Your task to perform on an android device: check google app version Image 0: 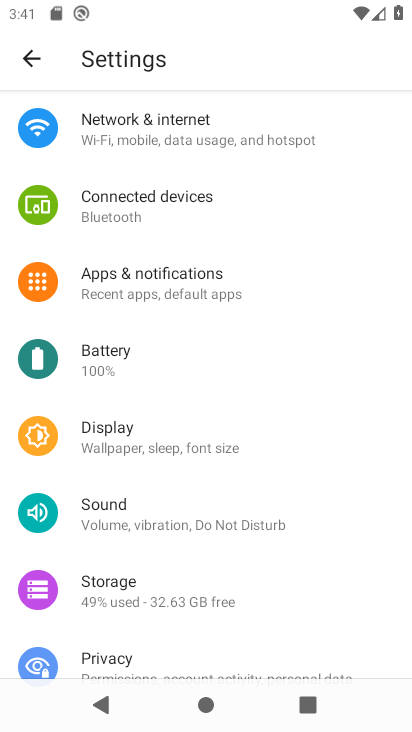
Step 0: press home button
Your task to perform on an android device: check google app version Image 1: 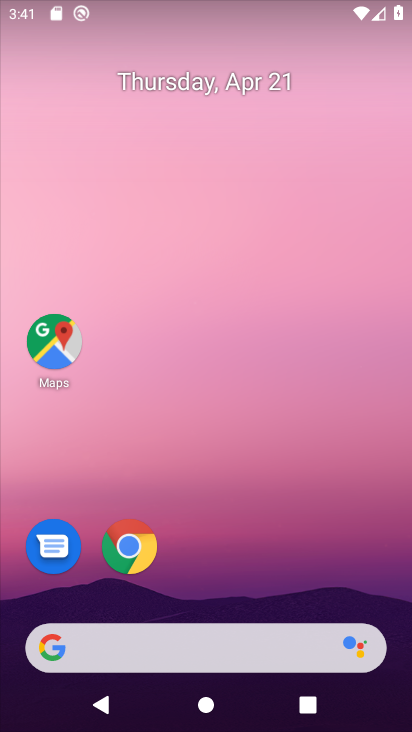
Step 1: click (203, 643)
Your task to perform on an android device: check google app version Image 2: 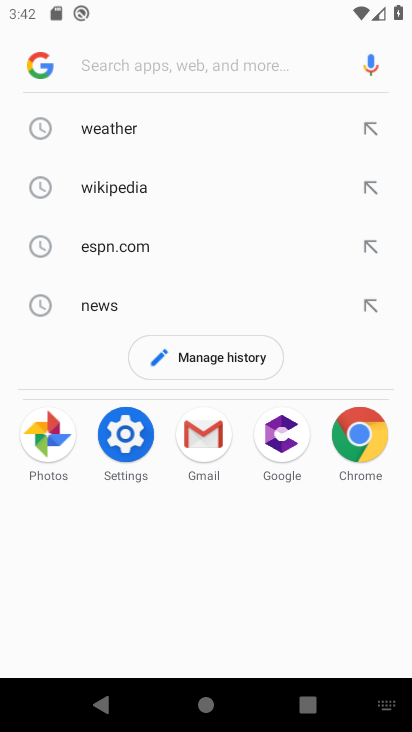
Step 2: click (51, 51)
Your task to perform on an android device: check google app version Image 3: 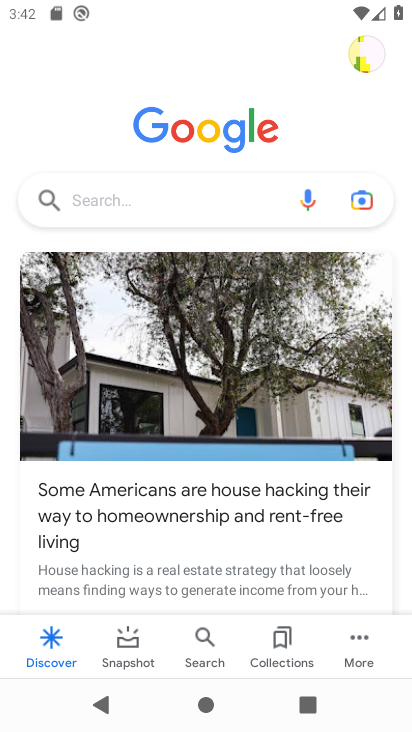
Step 3: click (354, 648)
Your task to perform on an android device: check google app version Image 4: 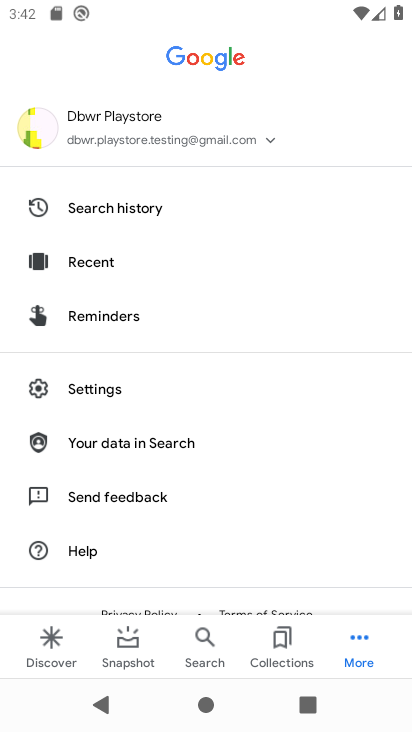
Step 4: drag from (147, 543) to (146, 300)
Your task to perform on an android device: check google app version Image 5: 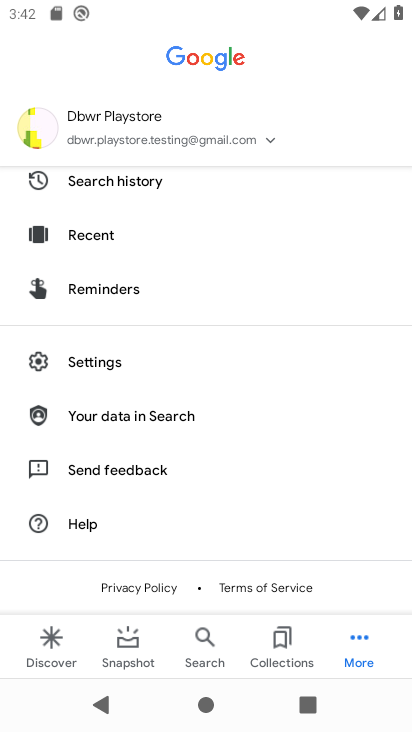
Step 5: click (117, 359)
Your task to perform on an android device: check google app version Image 6: 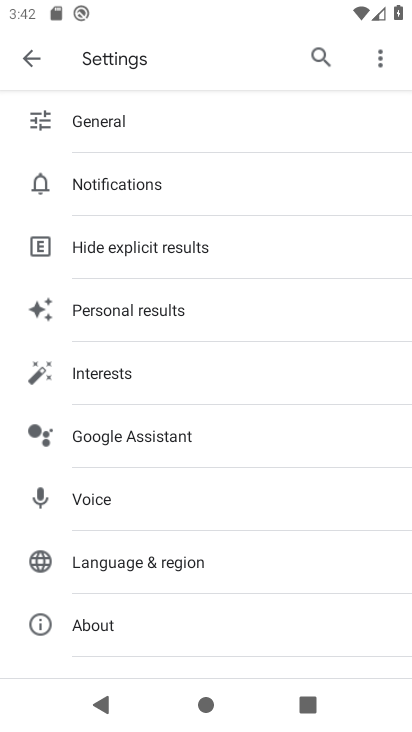
Step 6: drag from (187, 573) to (201, 142)
Your task to perform on an android device: check google app version Image 7: 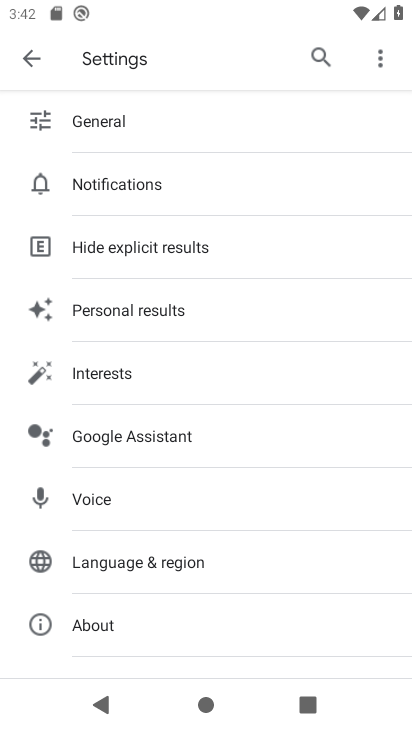
Step 7: click (47, 625)
Your task to perform on an android device: check google app version Image 8: 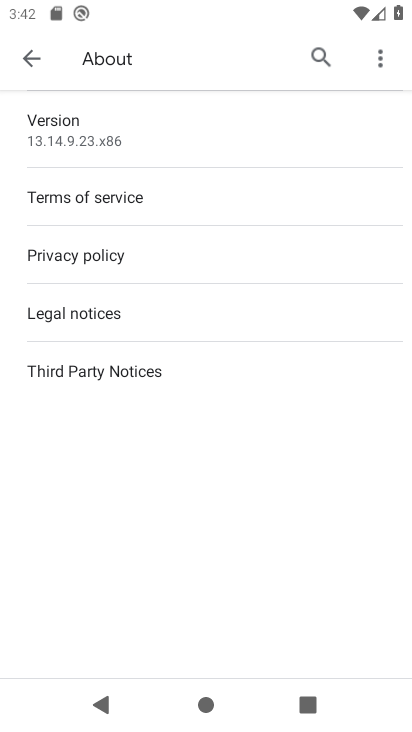
Step 8: task complete